Your task to perform on an android device: turn on javascript in the chrome app Image 0: 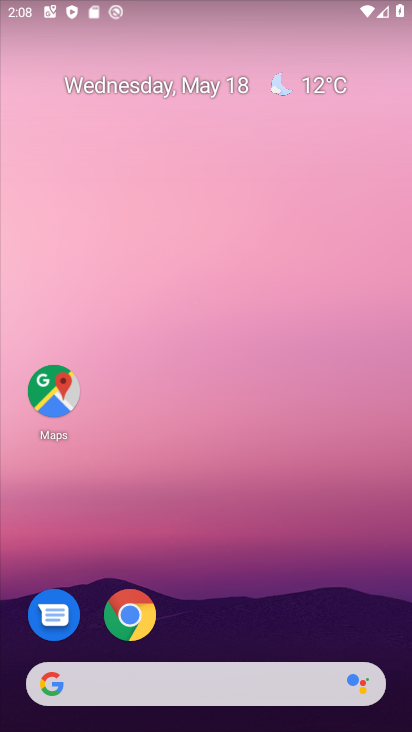
Step 0: drag from (360, 625) to (270, 105)
Your task to perform on an android device: turn on javascript in the chrome app Image 1: 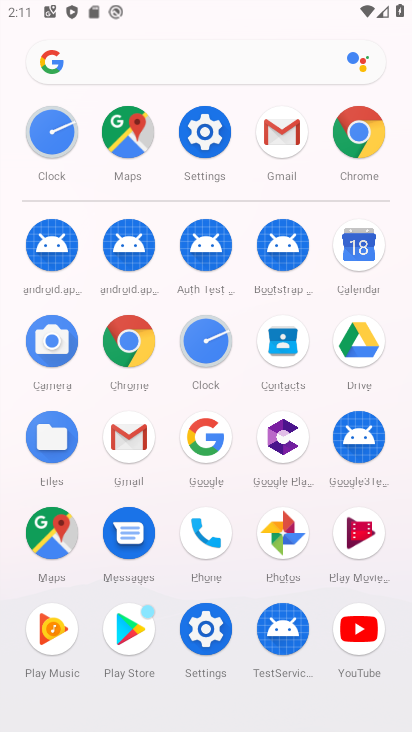
Step 1: click (125, 341)
Your task to perform on an android device: turn on javascript in the chrome app Image 2: 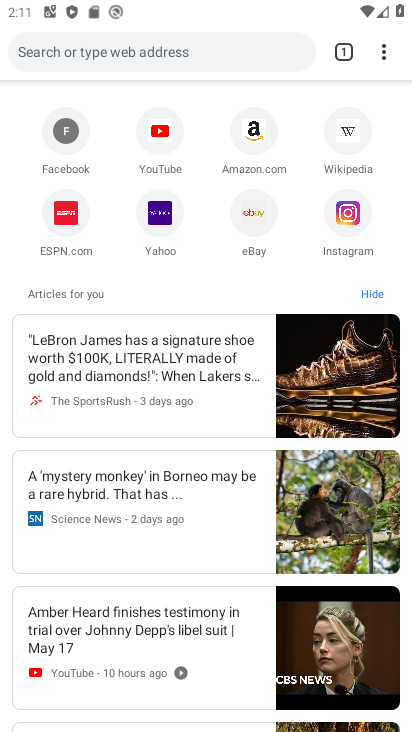
Step 2: click (383, 53)
Your task to perform on an android device: turn on javascript in the chrome app Image 3: 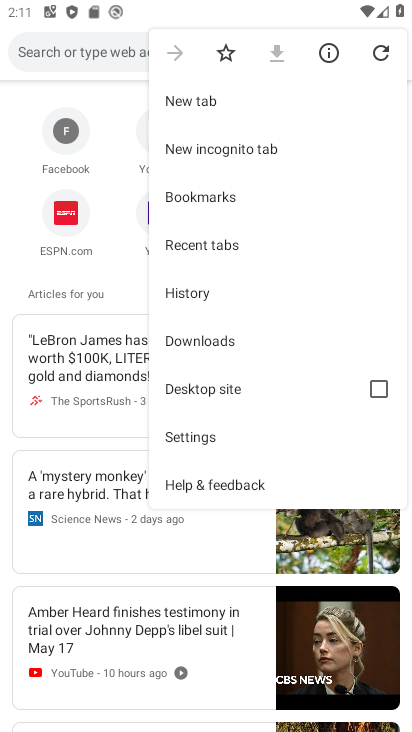
Step 3: click (240, 437)
Your task to perform on an android device: turn on javascript in the chrome app Image 4: 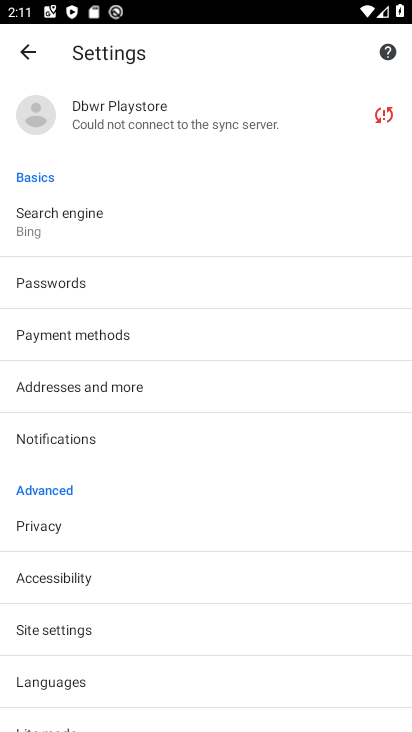
Step 4: click (113, 639)
Your task to perform on an android device: turn on javascript in the chrome app Image 5: 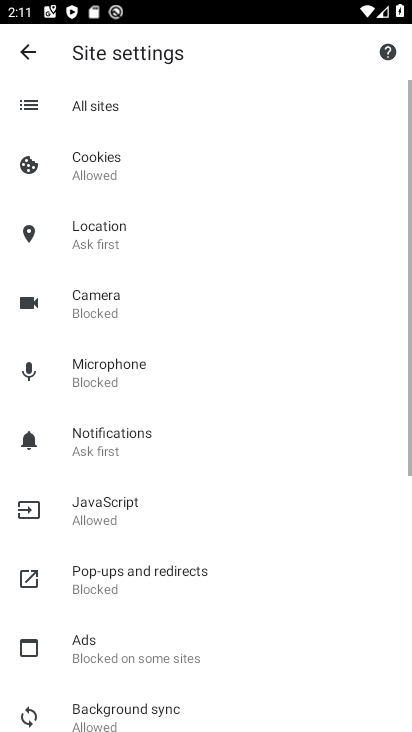
Step 5: click (123, 511)
Your task to perform on an android device: turn on javascript in the chrome app Image 6: 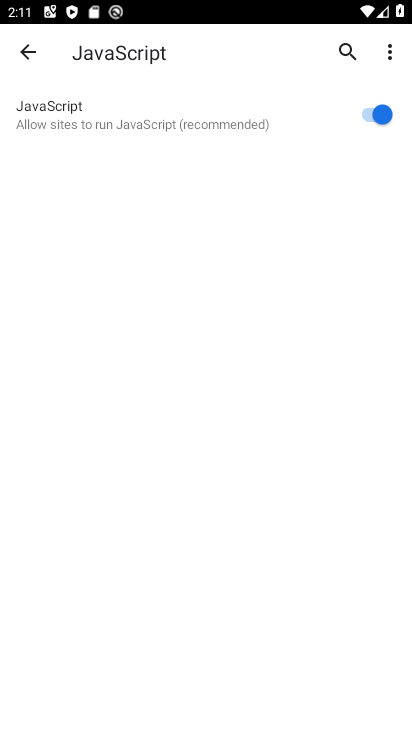
Step 6: task complete